Your task to perform on an android device: turn off improve location accuracy Image 0: 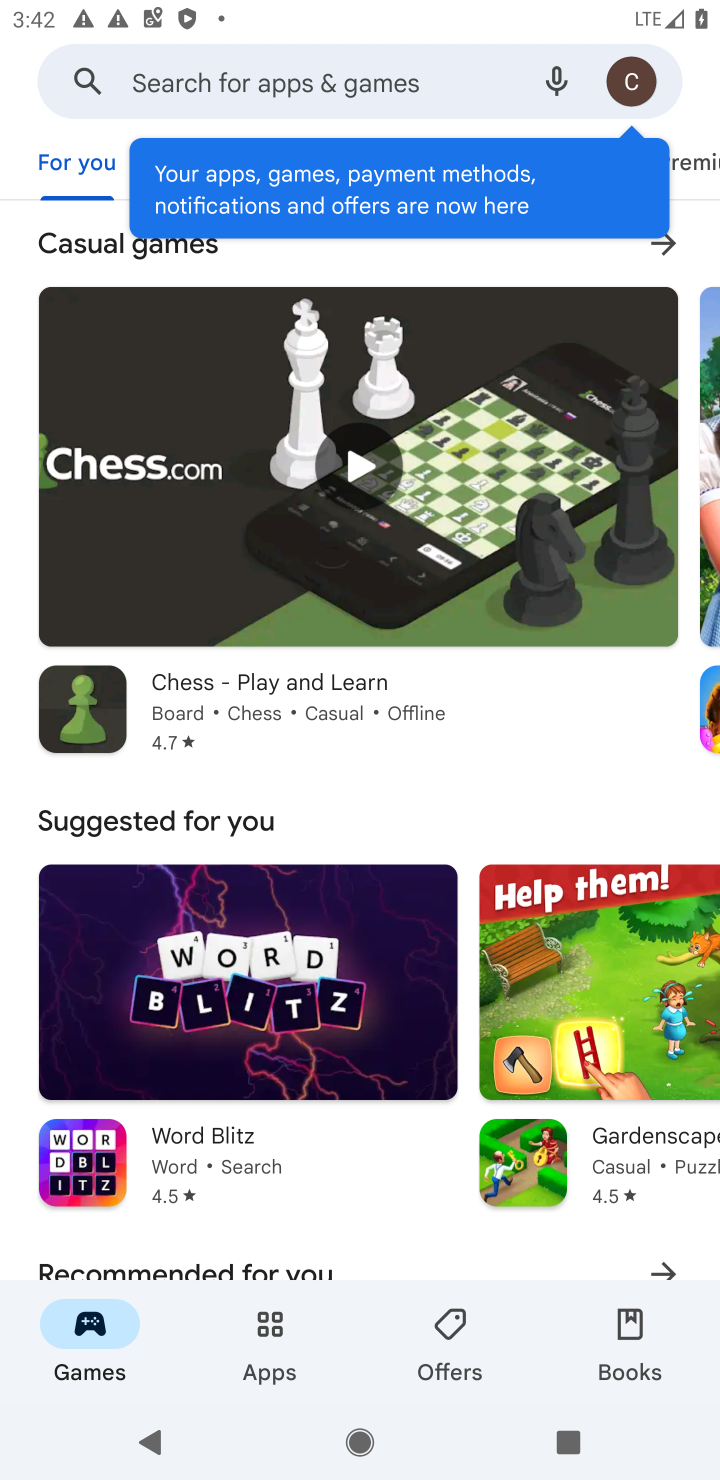
Step 0: press home button
Your task to perform on an android device: turn off improve location accuracy Image 1: 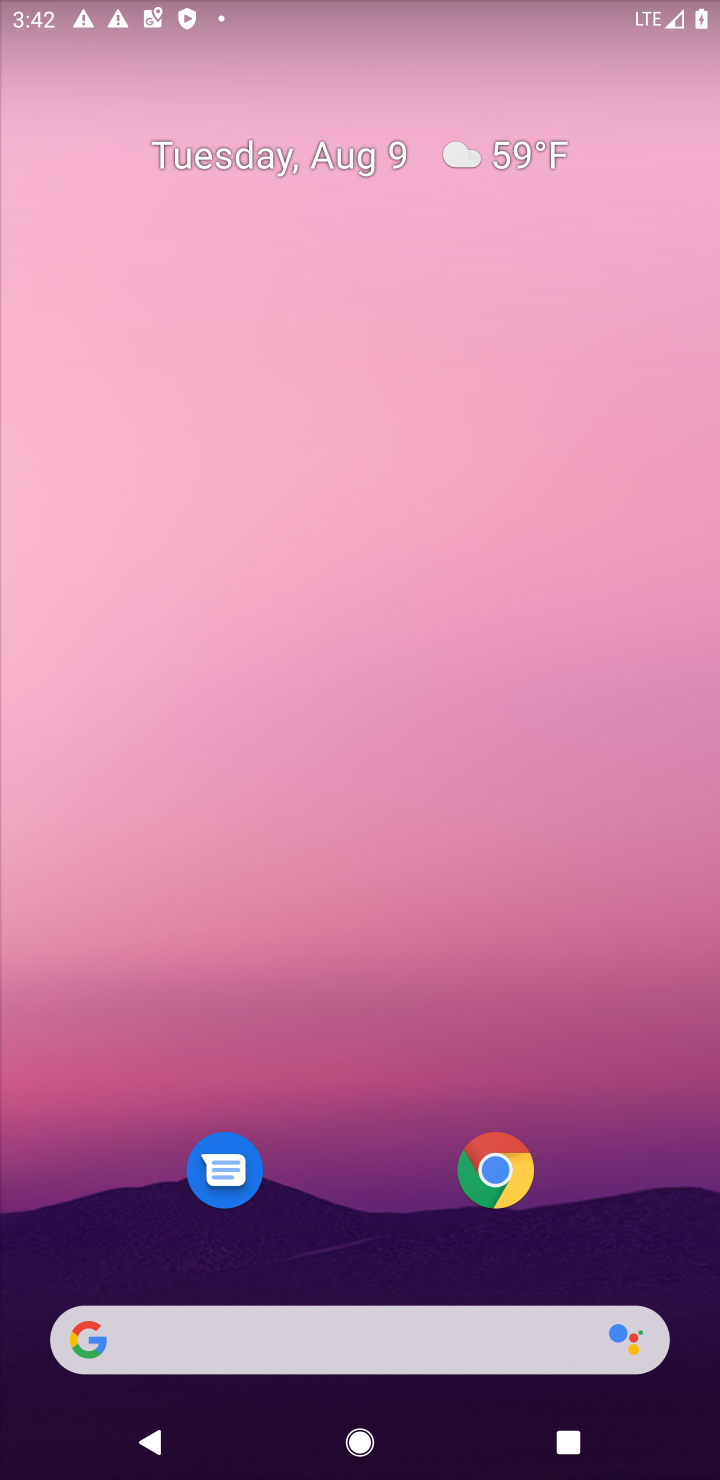
Step 1: drag from (377, 1092) to (357, 35)
Your task to perform on an android device: turn off improve location accuracy Image 2: 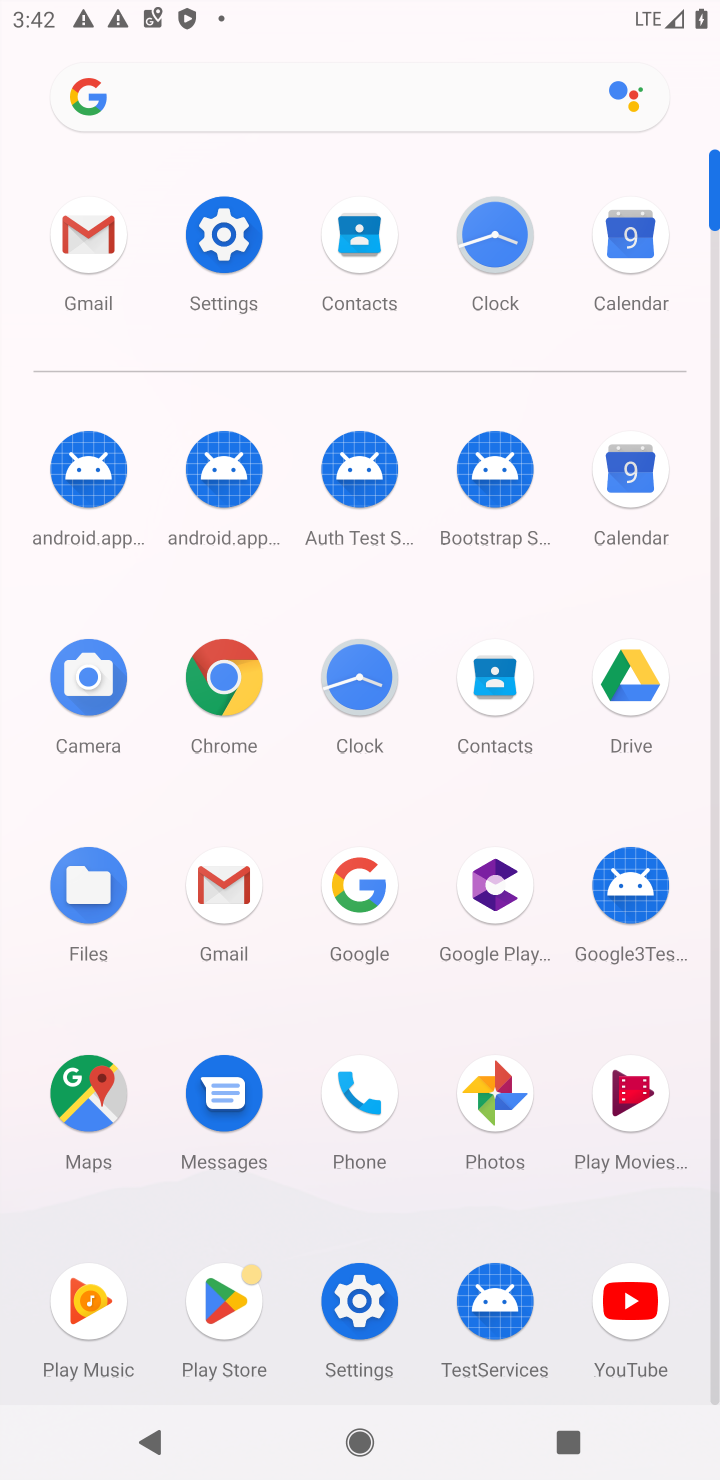
Step 2: click (226, 256)
Your task to perform on an android device: turn off improve location accuracy Image 3: 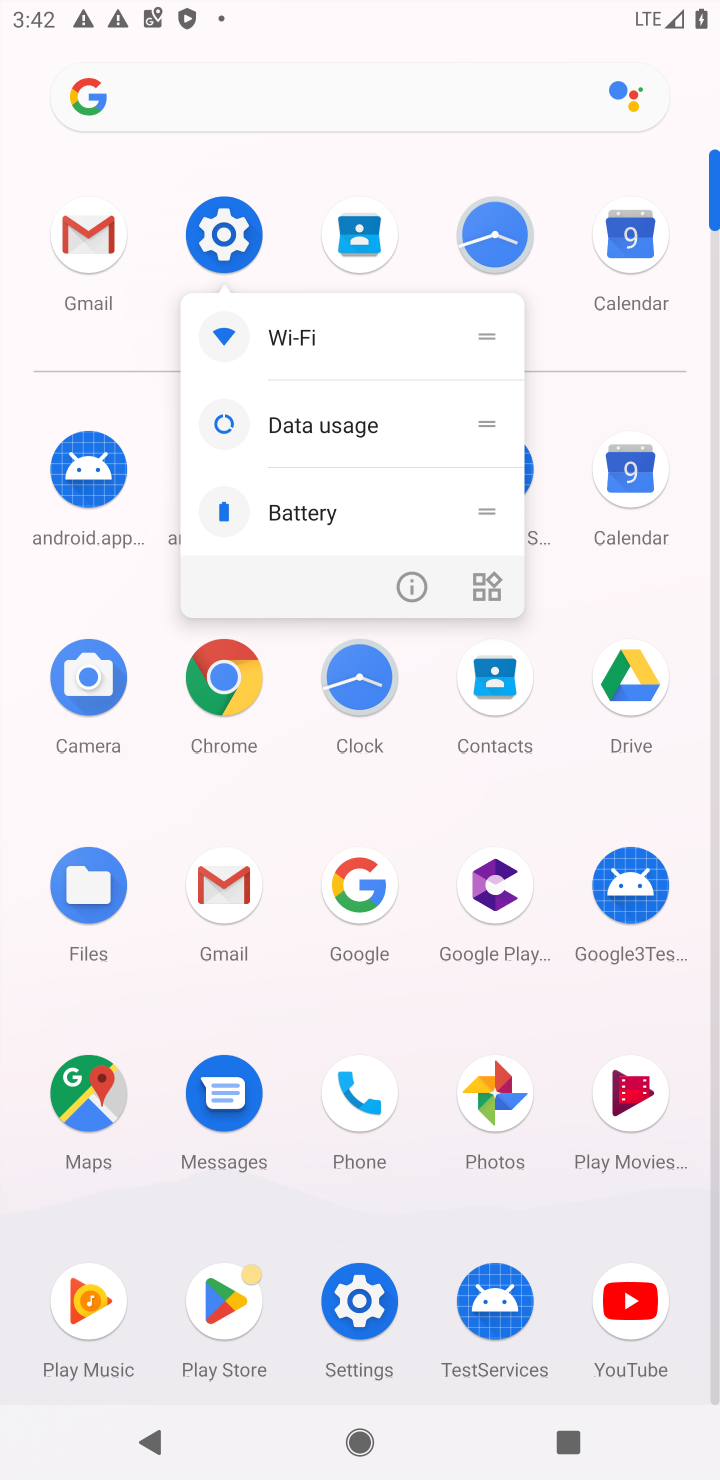
Step 3: click (217, 246)
Your task to perform on an android device: turn off improve location accuracy Image 4: 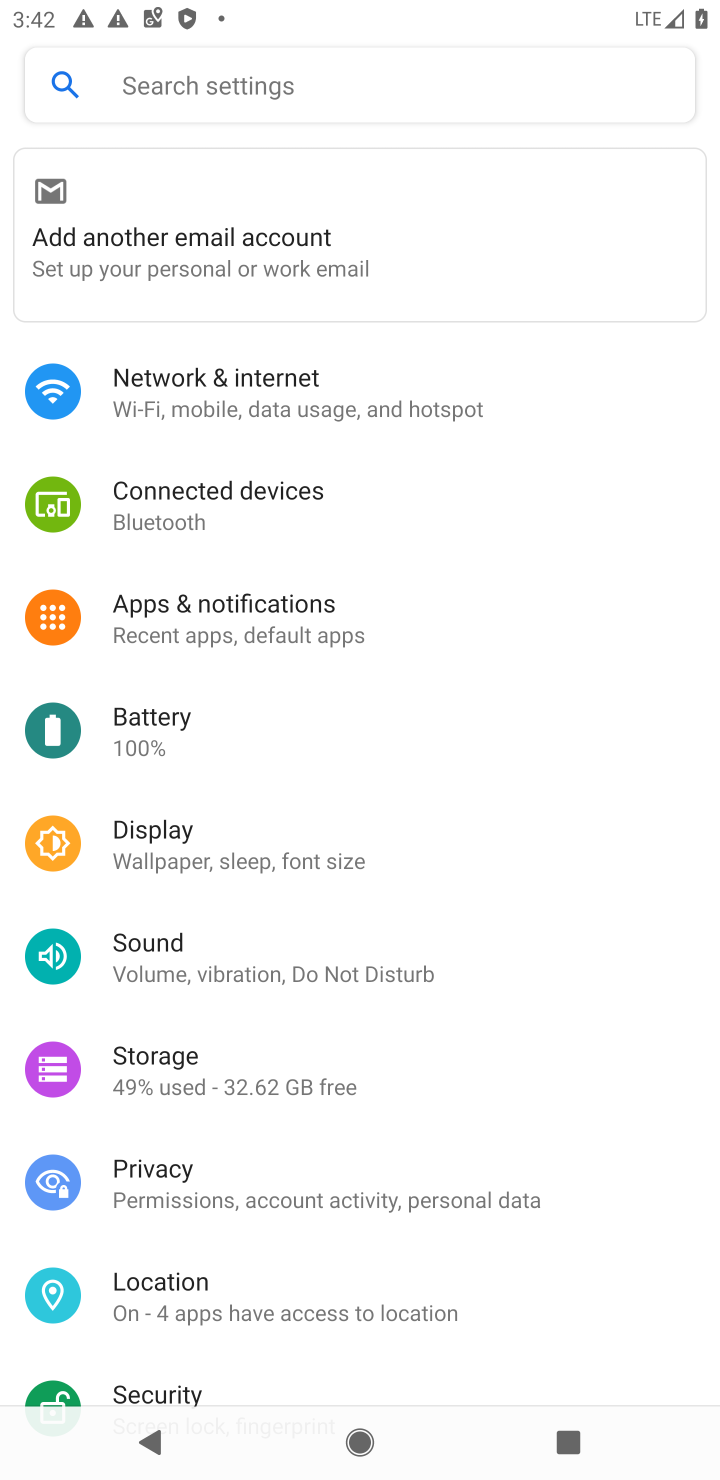
Step 4: click (266, 1273)
Your task to perform on an android device: turn off improve location accuracy Image 5: 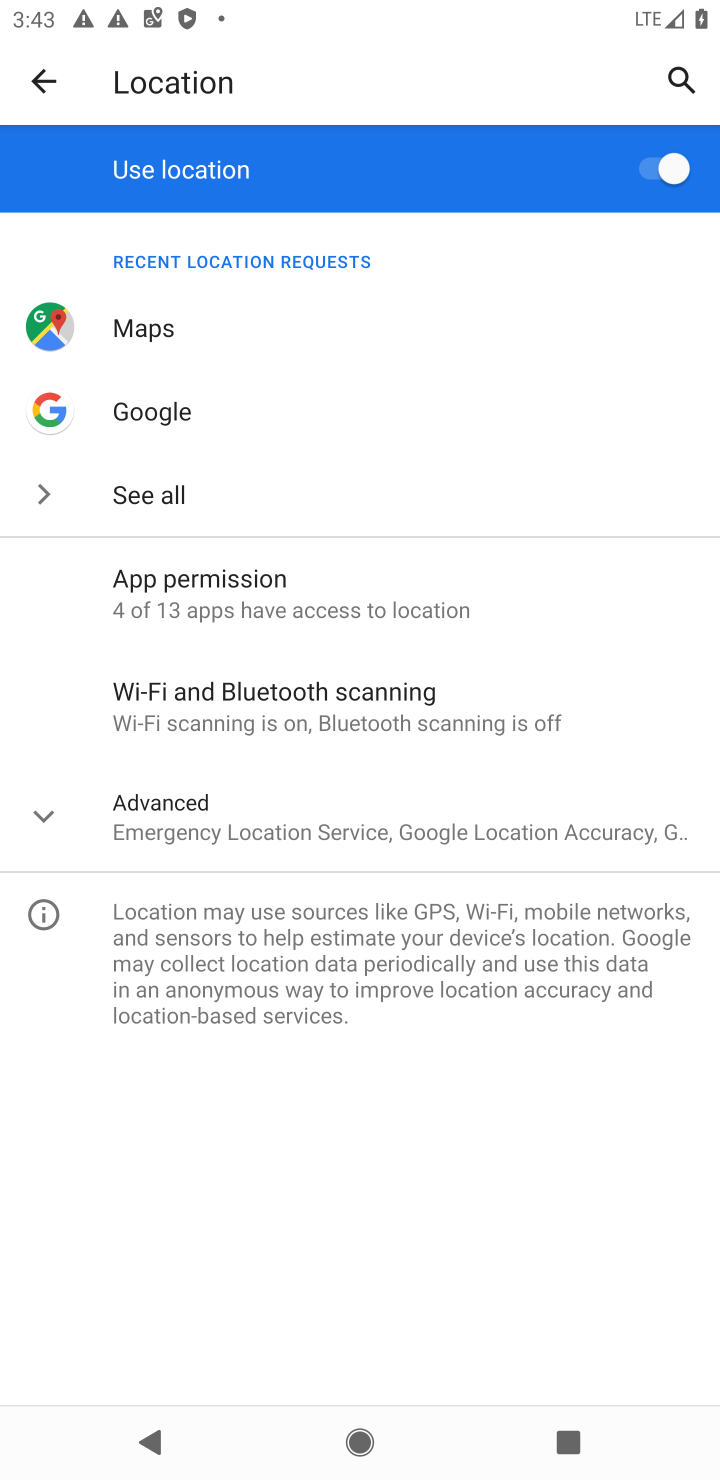
Step 5: click (50, 813)
Your task to perform on an android device: turn off improve location accuracy Image 6: 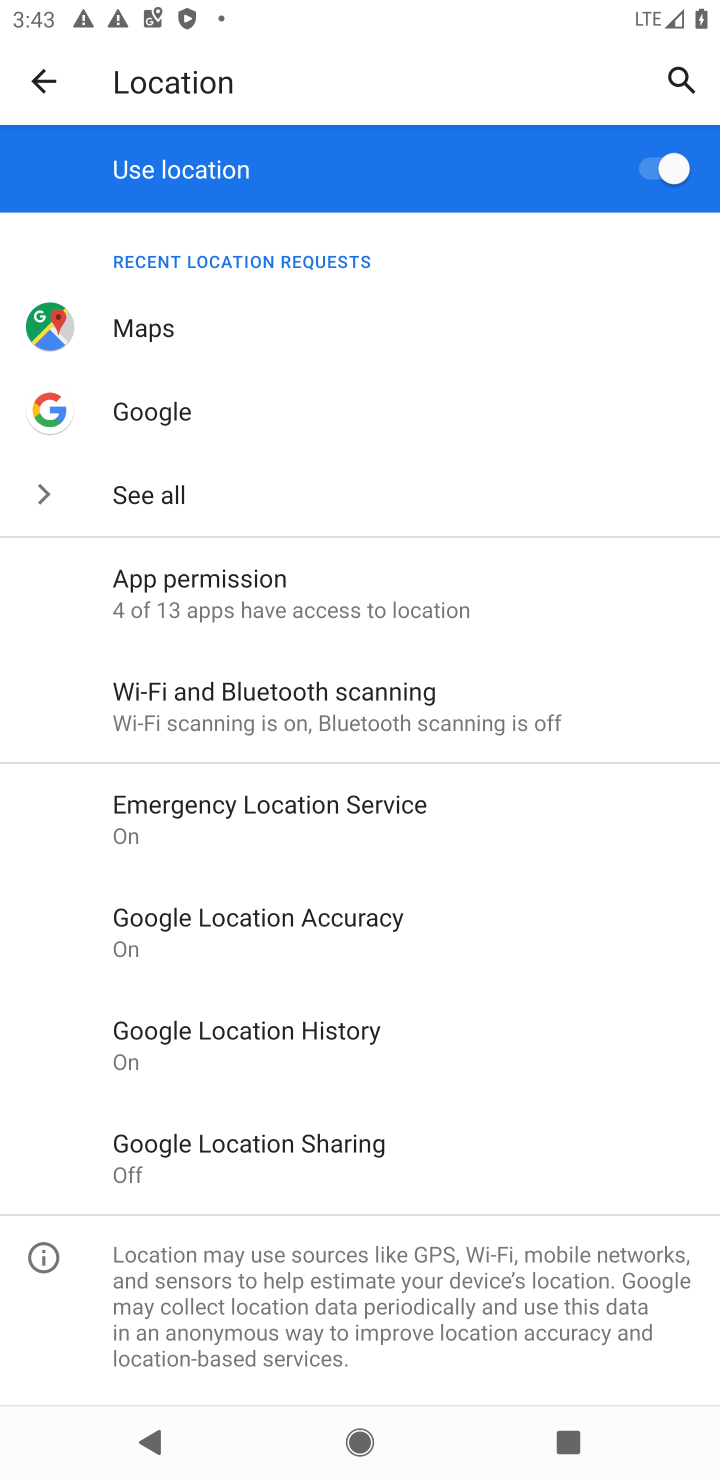
Step 6: click (213, 934)
Your task to perform on an android device: turn off improve location accuracy Image 7: 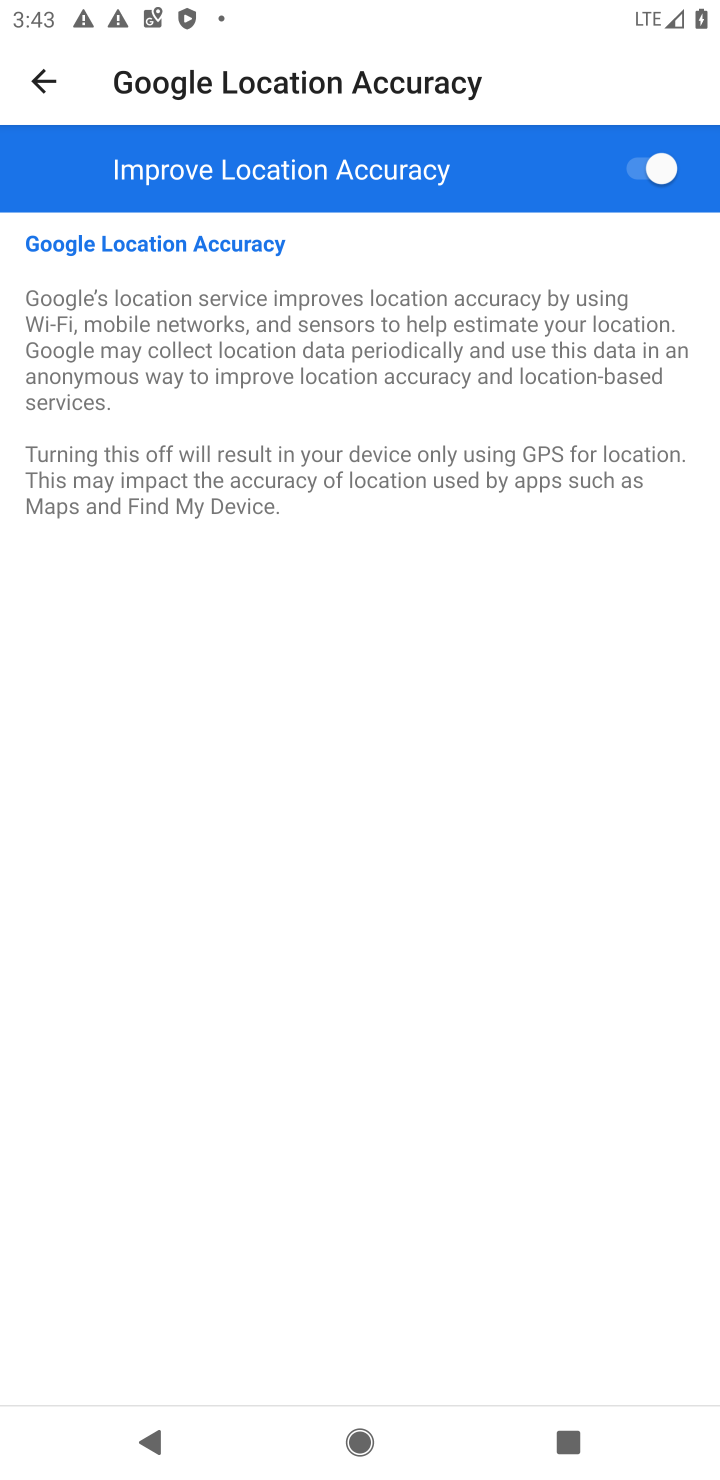
Step 7: click (646, 188)
Your task to perform on an android device: turn off improve location accuracy Image 8: 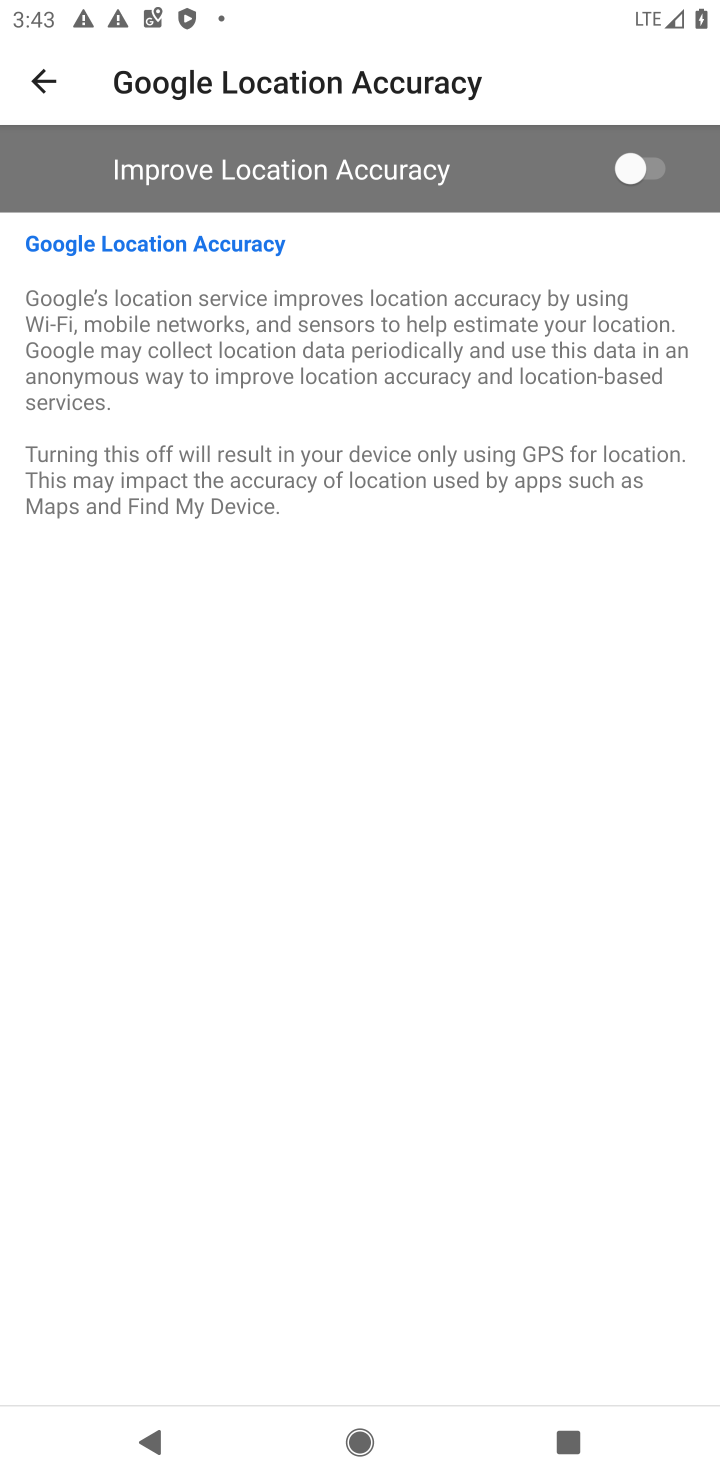
Step 8: task complete